Your task to perform on an android device: set an alarm Image 0: 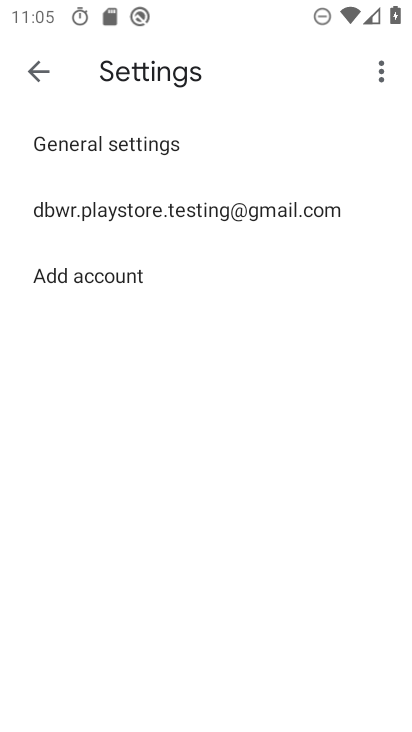
Step 0: press home button
Your task to perform on an android device: set an alarm Image 1: 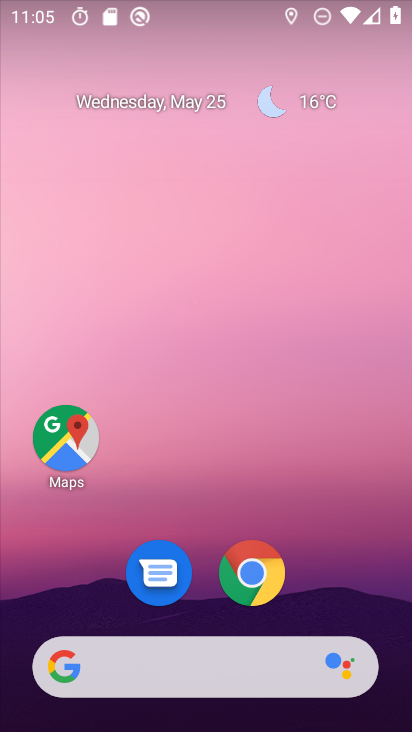
Step 1: drag from (339, 592) to (334, 12)
Your task to perform on an android device: set an alarm Image 2: 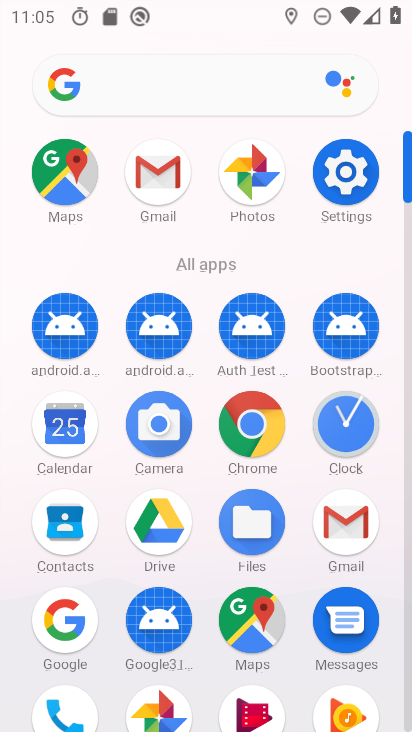
Step 2: click (344, 430)
Your task to perform on an android device: set an alarm Image 3: 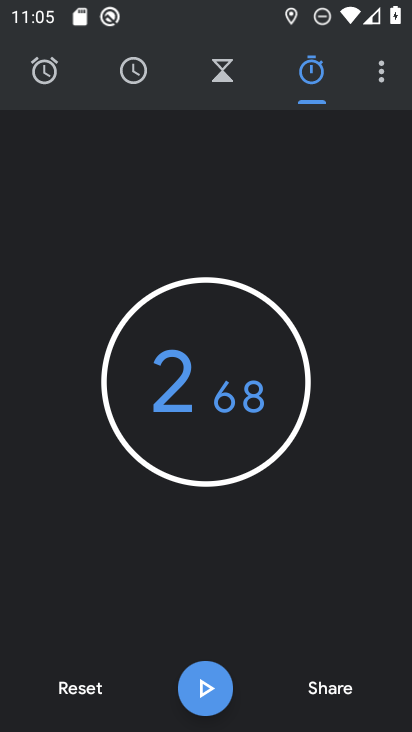
Step 3: click (39, 75)
Your task to perform on an android device: set an alarm Image 4: 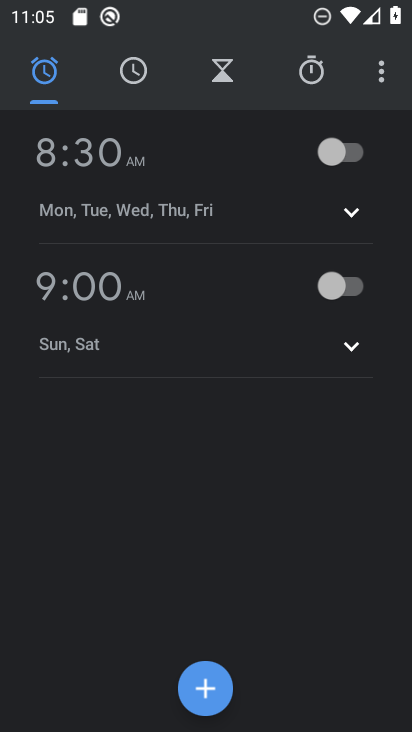
Step 4: click (202, 696)
Your task to perform on an android device: set an alarm Image 5: 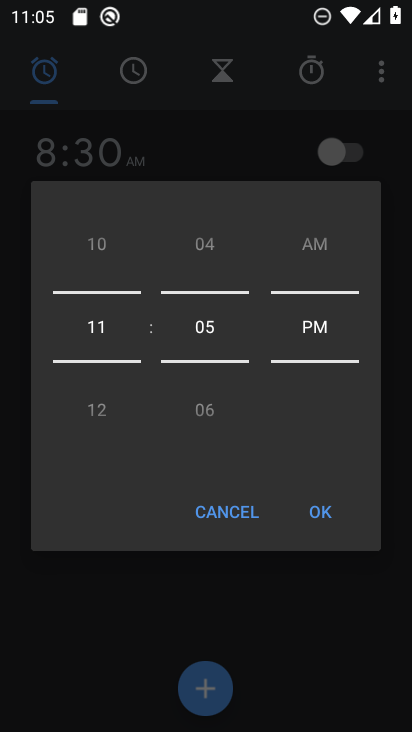
Step 5: drag from (108, 322) to (98, 580)
Your task to perform on an android device: set an alarm Image 6: 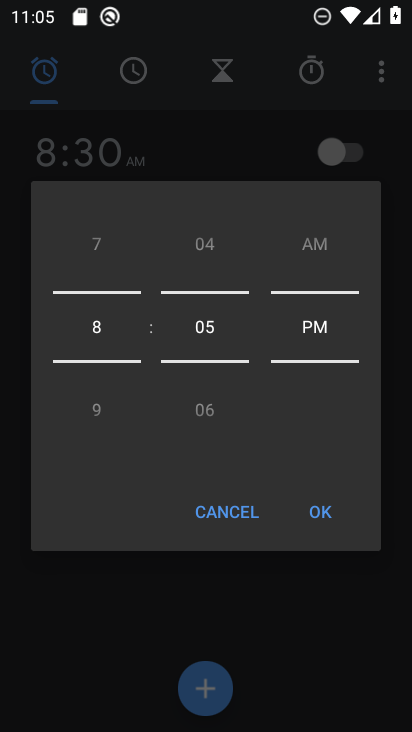
Step 6: drag from (103, 264) to (116, 560)
Your task to perform on an android device: set an alarm Image 7: 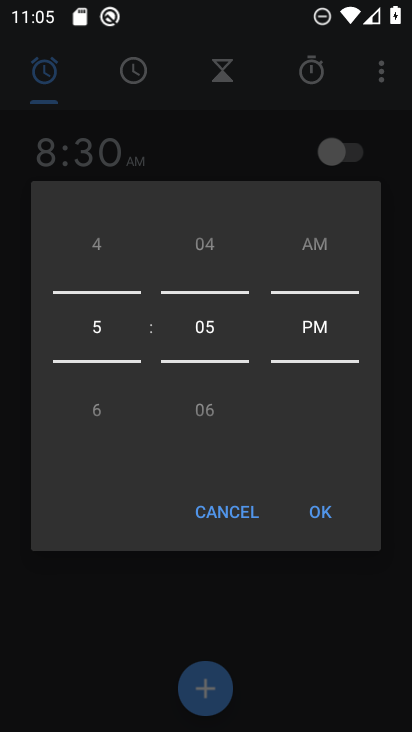
Step 7: drag from (202, 317) to (225, 690)
Your task to perform on an android device: set an alarm Image 8: 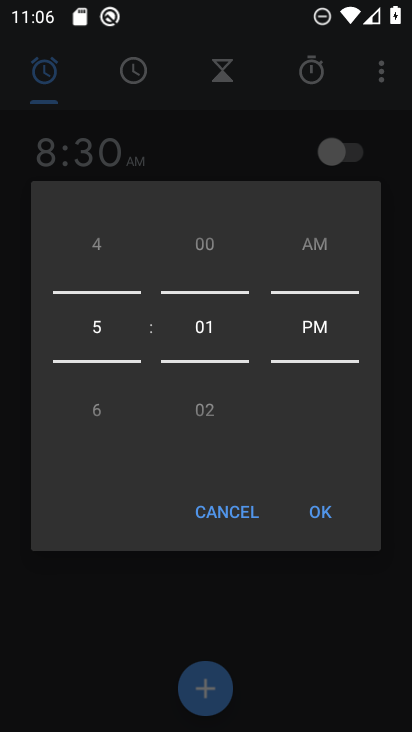
Step 8: drag from (220, 331) to (233, 388)
Your task to perform on an android device: set an alarm Image 9: 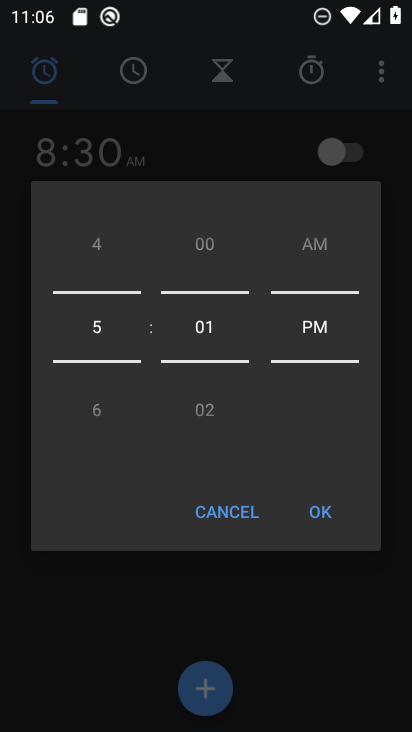
Step 9: drag from (319, 327) to (329, 405)
Your task to perform on an android device: set an alarm Image 10: 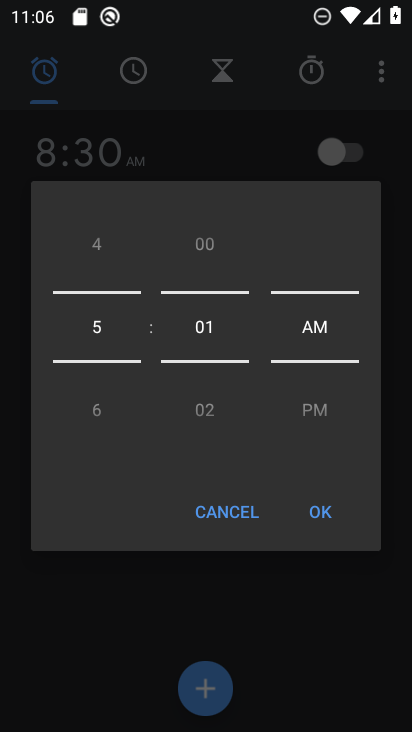
Step 10: click (315, 515)
Your task to perform on an android device: set an alarm Image 11: 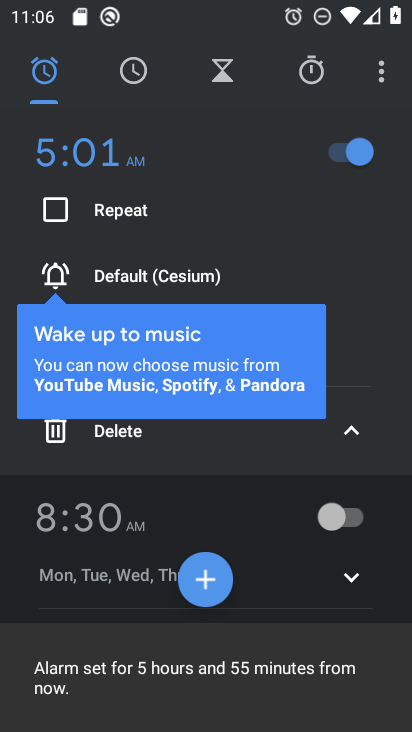
Step 11: task complete